Your task to perform on an android device: See recent photos Image 0: 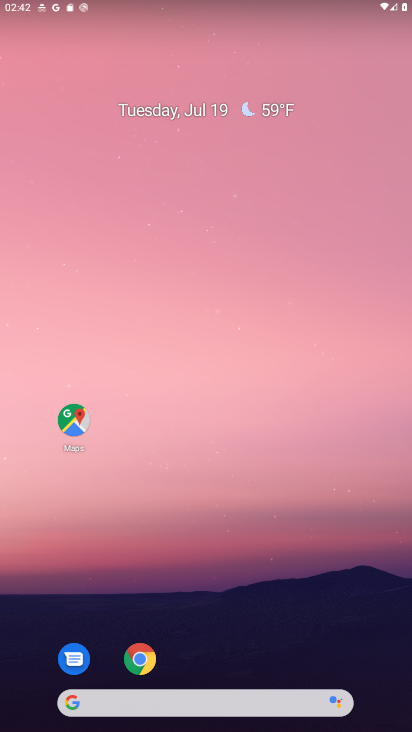
Step 0: drag from (211, 665) to (221, 132)
Your task to perform on an android device: See recent photos Image 1: 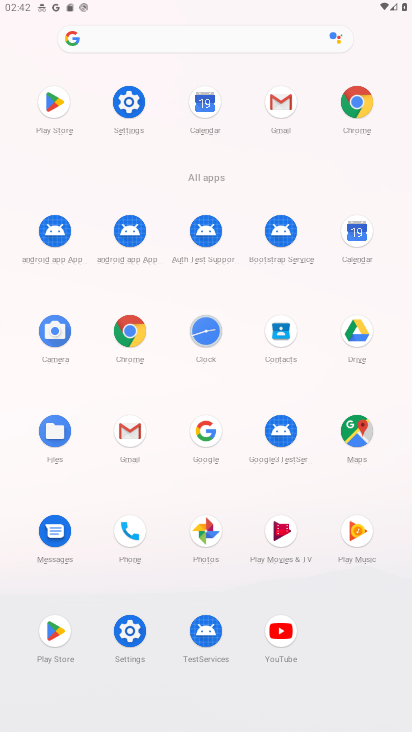
Step 1: click (211, 527)
Your task to perform on an android device: See recent photos Image 2: 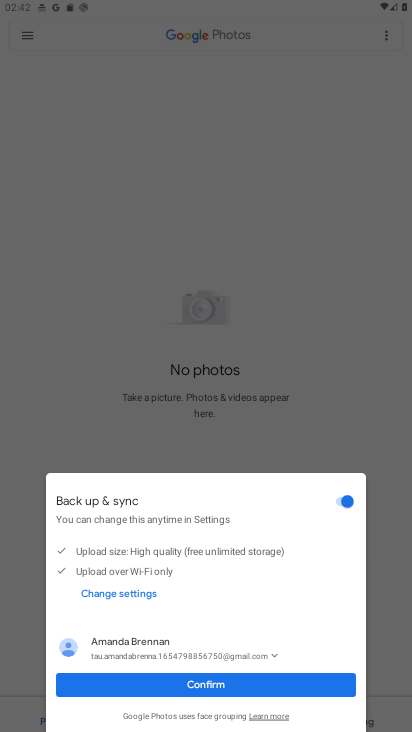
Step 2: click (211, 690)
Your task to perform on an android device: See recent photos Image 3: 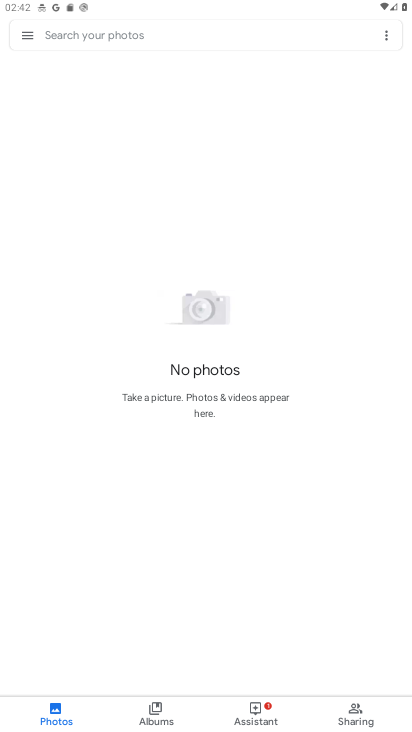
Step 3: task complete